Your task to perform on an android device: Open Maps and search for coffee Image 0: 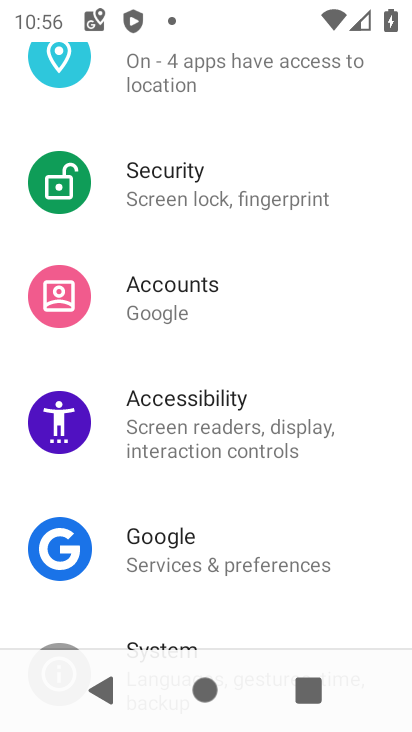
Step 0: press home button
Your task to perform on an android device: Open Maps and search for coffee Image 1: 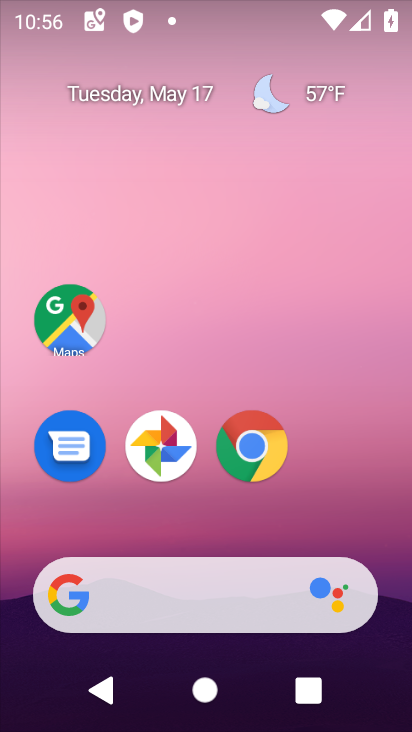
Step 1: click (56, 335)
Your task to perform on an android device: Open Maps and search for coffee Image 2: 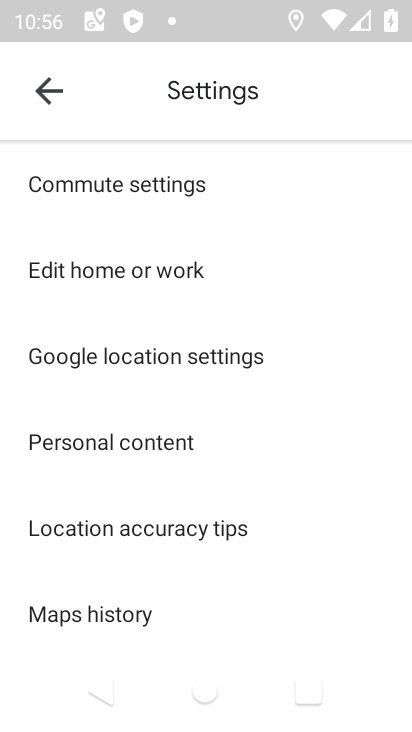
Step 2: click (49, 114)
Your task to perform on an android device: Open Maps and search for coffee Image 3: 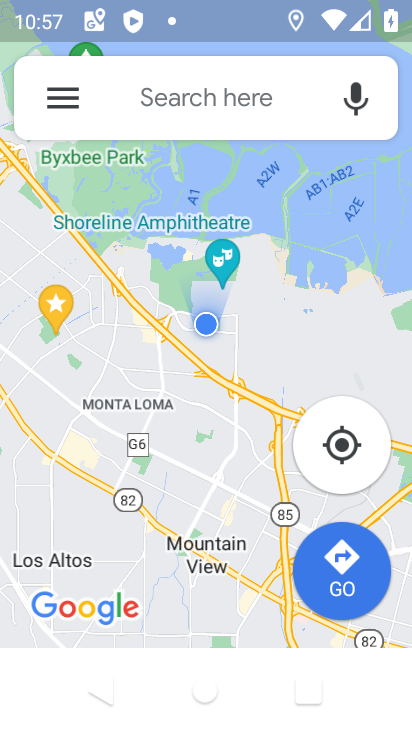
Step 3: click (185, 122)
Your task to perform on an android device: Open Maps and search for coffee Image 4: 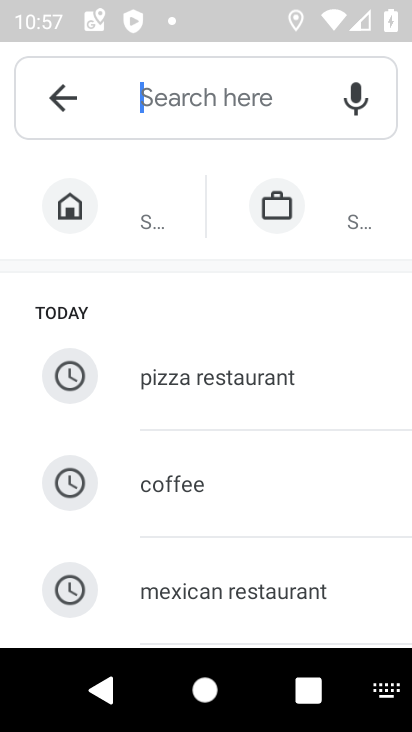
Step 4: click (177, 472)
Your task to perform on an android device: Open Maps and search for coffee Image 5: 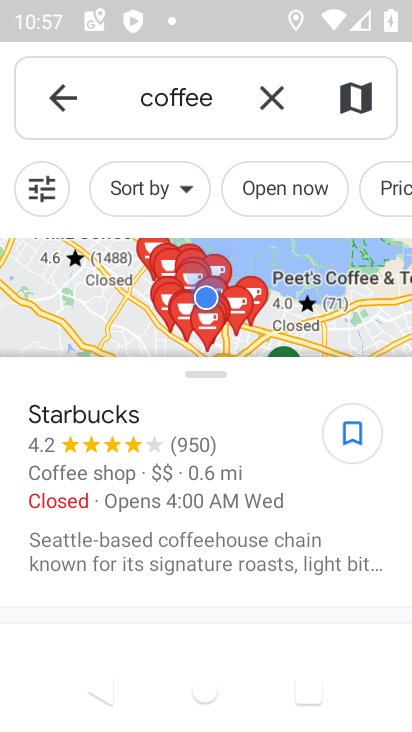
Step 5: task complete